Your task to perform on an android device: turn on sleep mode Image 0: 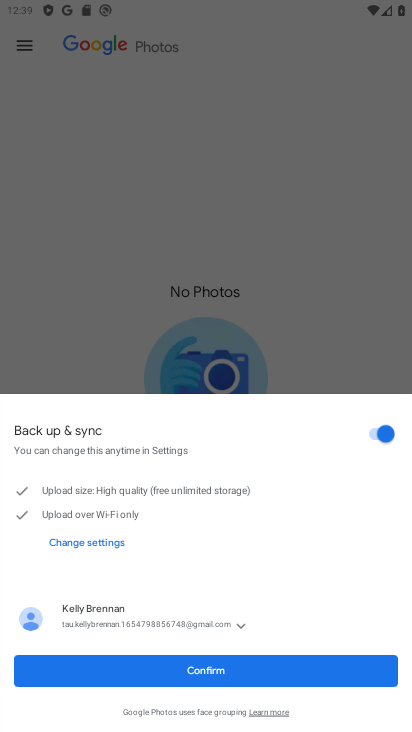
Step 0: press home button
Your task to perform on an android device: turn on sleep mode Image 1: 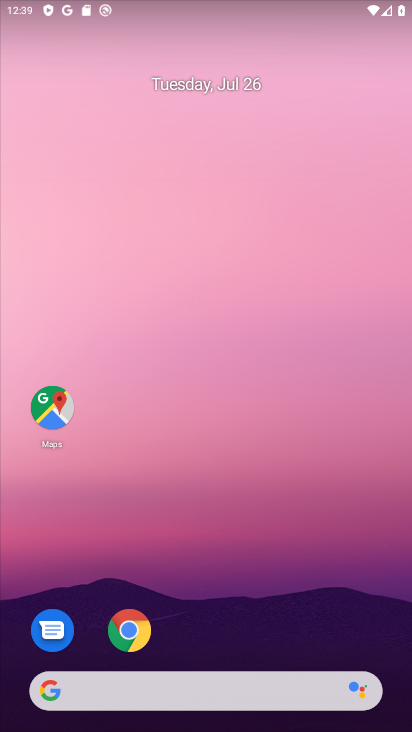
Step 1: task complete